Your task to perform on an android device: turn on javascript in the chrome app Image 0: 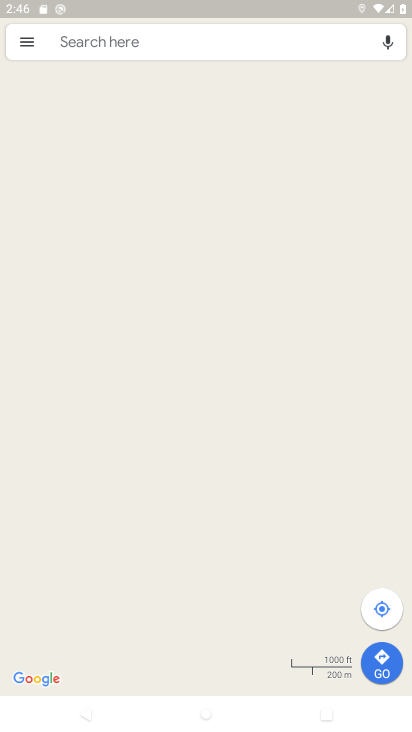
Step 0: press home button
Your task to perform on an android device: turn on javascript in the chrome app Image 1: 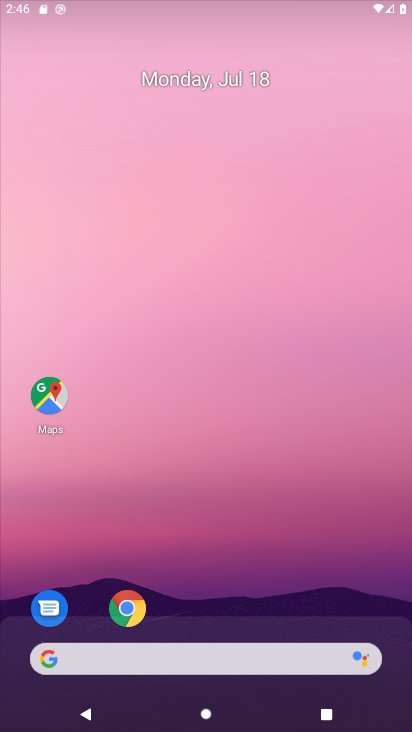
Step 1: drag from (157, 683) to (255, 108)
Your task to perform on an android device: turn on javascript in the chrome app Image 2: 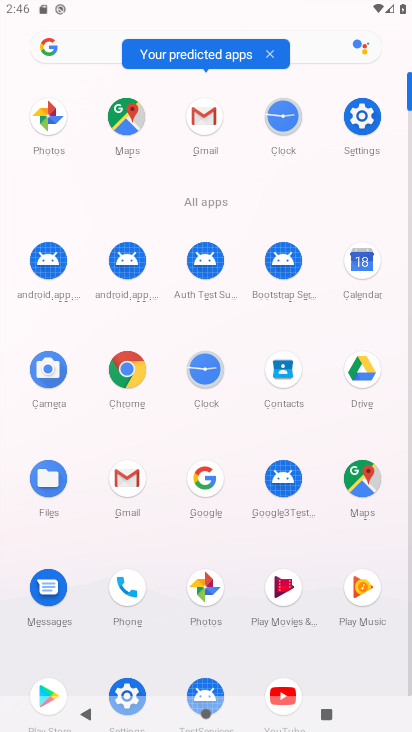
Step 2: click (129, 363)
Your task to perform on an android device: turn on javascript in the chrome app Image 3: 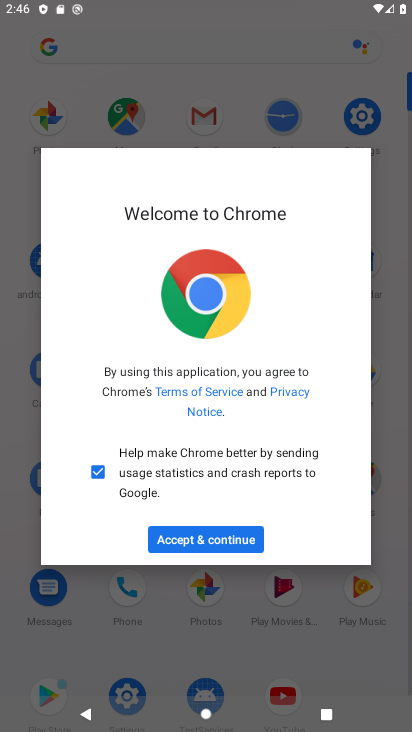
Step 3: click (234, 533)
Your task to perform on an android device: turn on javascript in the chrome app Image 4: 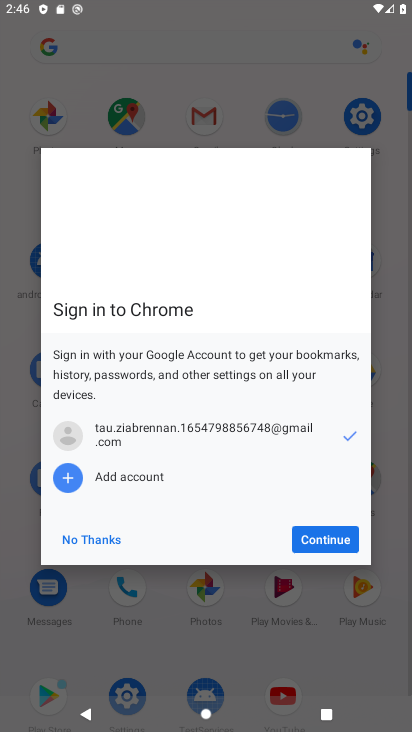
Step 4: click (340, 541)
Your task to perform on an android device: turn on javascript in the chrome app Image 5: 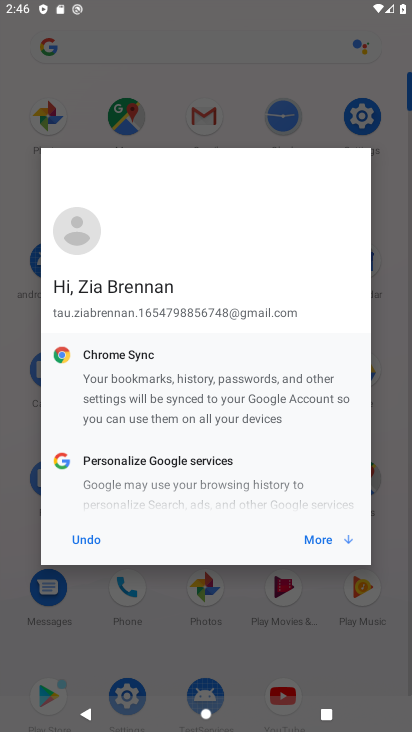
Step 5: click (340, 541)
Your task to perform on an android device: turn on javascript in the chrome app Image 6: 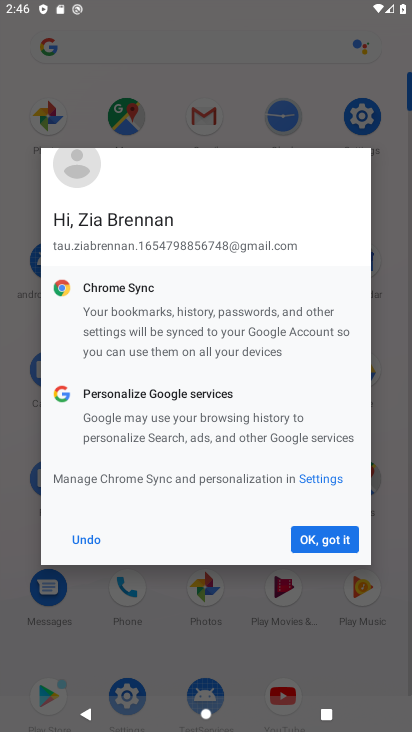
Step 6: click (340, 541)
Your task to perform on an android device: turn on javascript in the chrome app Image 7: 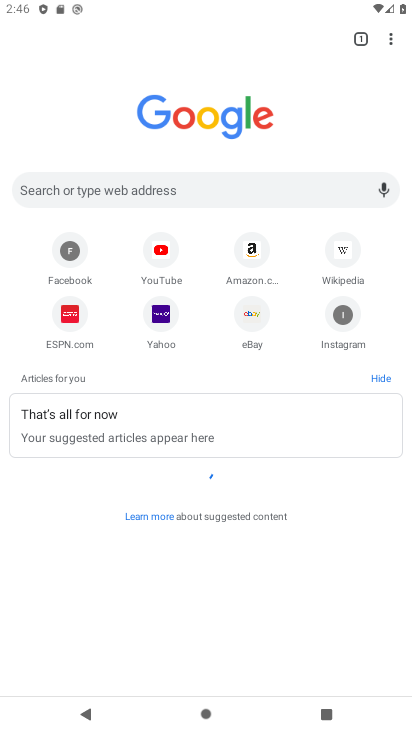
Step 7: drag from (388, 31) to (354, 334)
Your task to perform on an android device: turn on javascript in the chrome app Image 8: 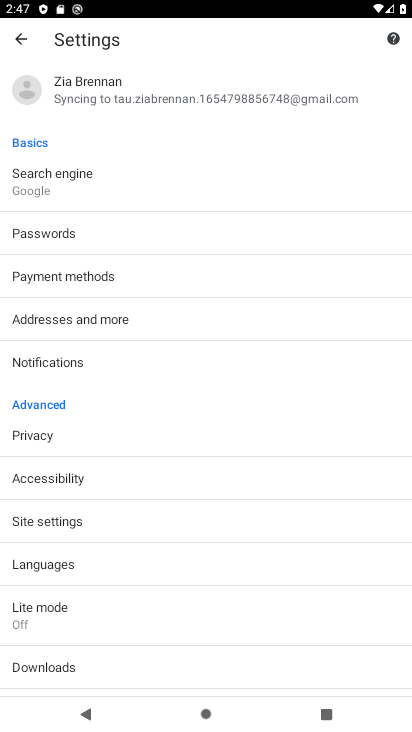
Step 8: click (126, 538)
Your task to perform on an android device: turn on javascript in the chrome app Image 9: 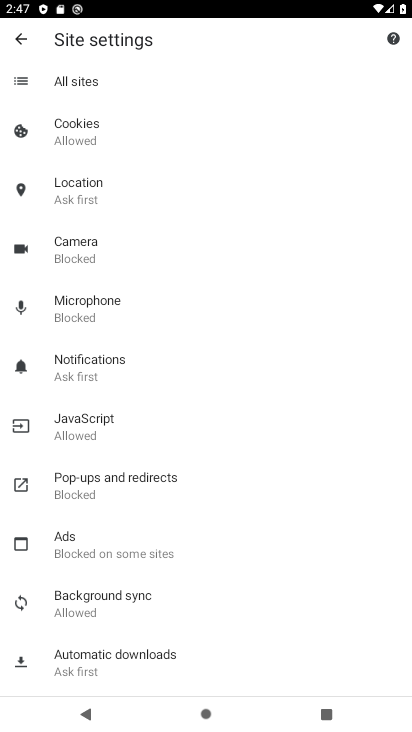
Step 9: click (156, 433)
Your task to perform on an android device: turn on javascript in the chrome app Image 10: 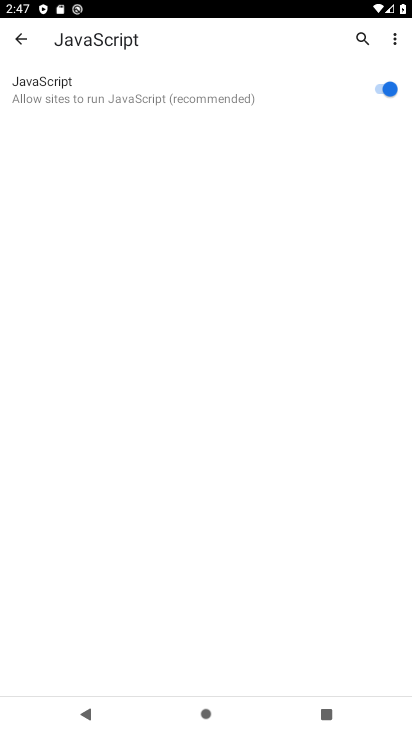
Step 10: task complete